Your task to perform on an android device: turn notification dots off Image 0: 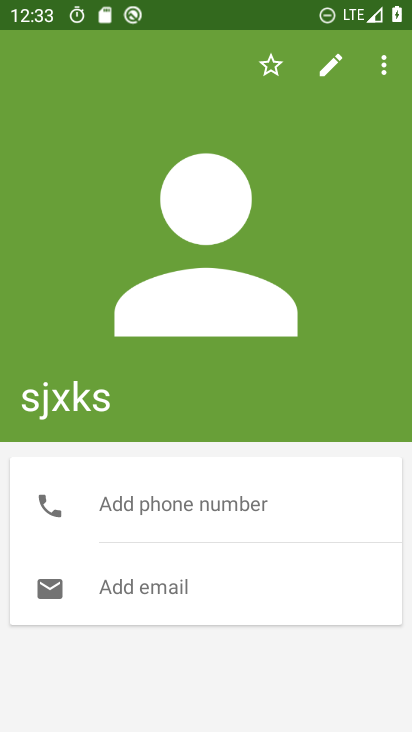
Step 0: drag from (233, 619) to (351, 194)
Your task to perform on an android device: turn notification dots off Image 1: 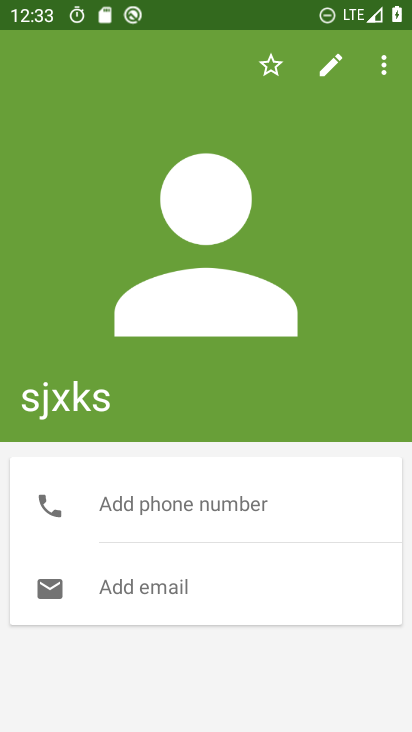
Step 1: drag from (191, 656) to (244, 361)
Your task to perform on an android device: turn notification dots off Image 2: 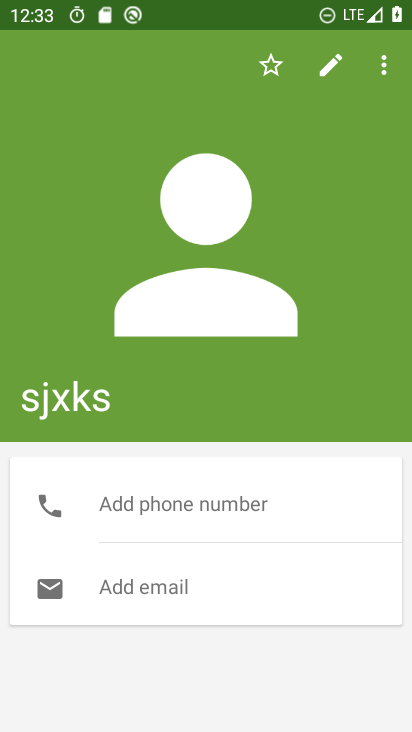
Step 2: drag from (233, 649) to (263, 339)
Your task to perform on an android device: turn notification dots off Image 3: 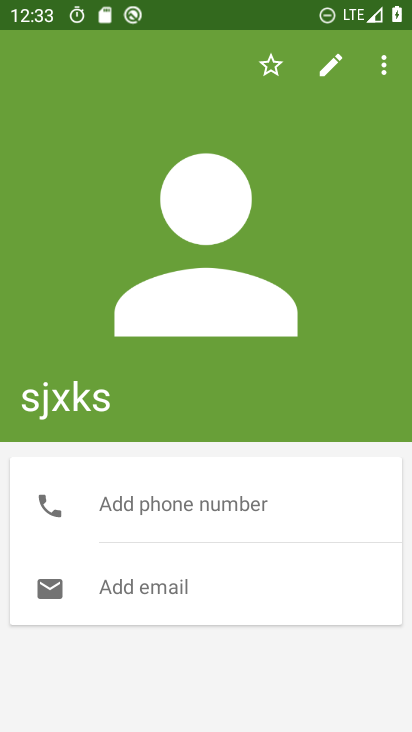
Step 3: press home button
Your task to perform on an android device: turn notification dots off Image 4: 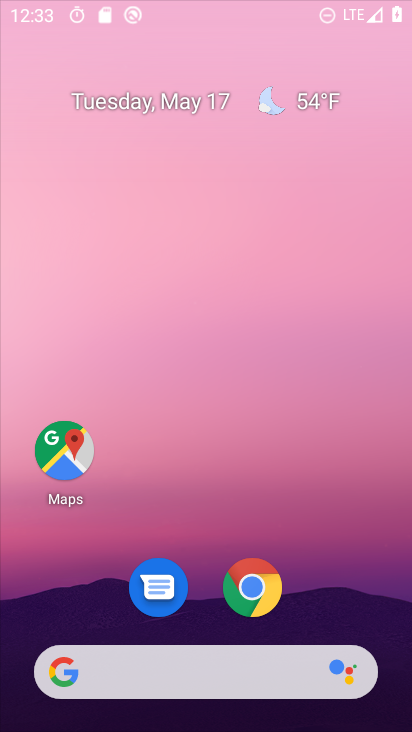
Step 4: drag from (259, 626) to (259, 207)
Your task to perform on an android device: turn notification dots off Image 5: 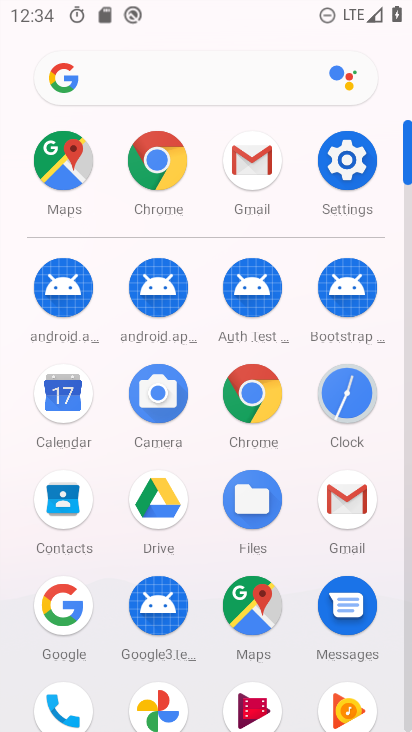
Step 5: click (353, 169)
Your task to perform on an android device: turn notification dots off Image 6: 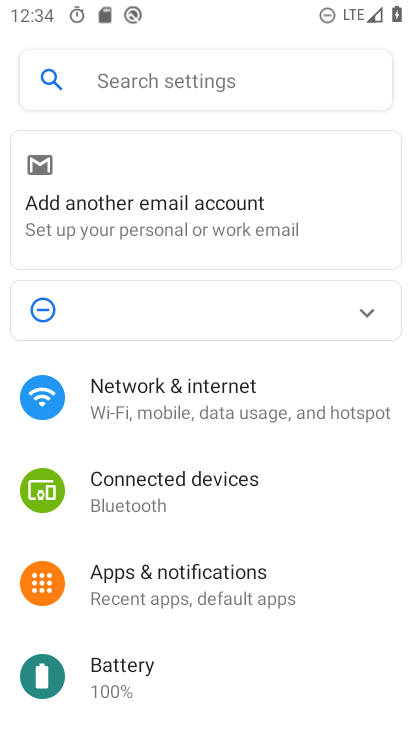
Step 6: drag from (231, 505) to (368, 74)
Your task to perform on an android device: turn notification dots off Image 7: 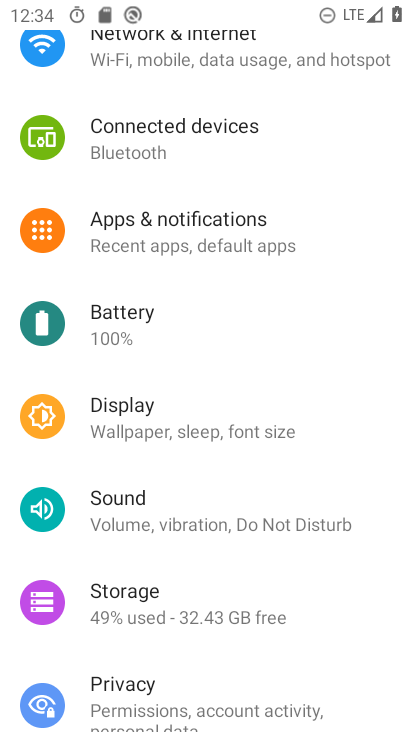
Step 7: click (204, 235)
Your task to perform on an android device: turn notification dots off Image 8: 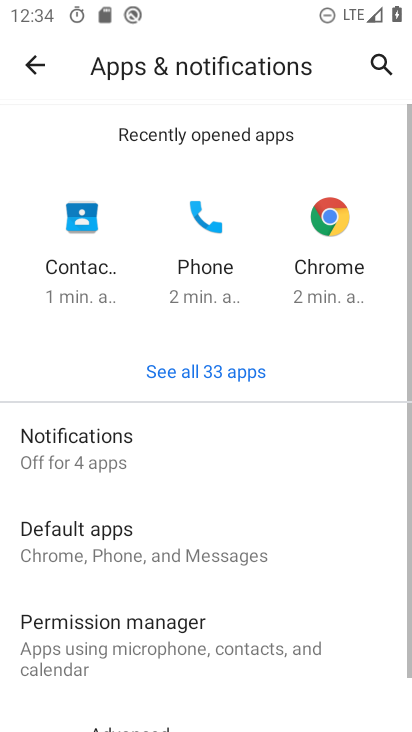
Step 8: drag from (183, 576) to (242, 335)
Your task to perform on an android device: turn notification dots off Image 9: 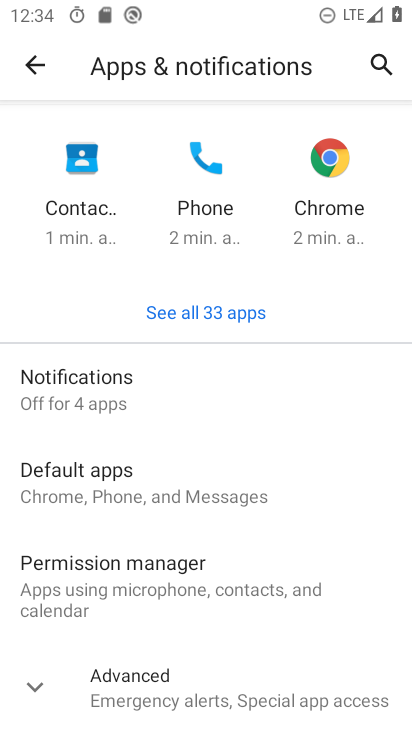
Step 9: drag from (228, 546) to (279, 194)
Your task to perform on an android device: turn notification dots off Image 10: 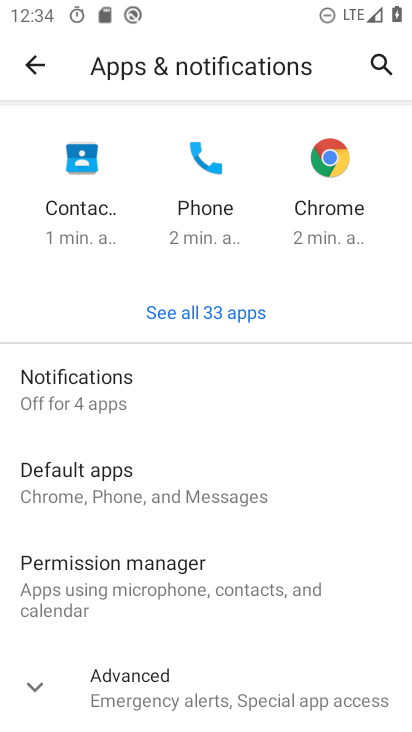
Step 10: drag from (257, 604) to (292, 312)
Your task to perform on an android device: turn notification dots off Image 11: 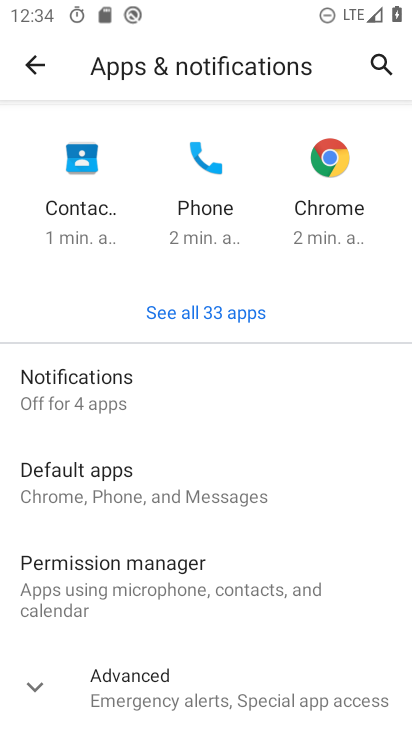
Step 11: drag from (237, 608) to (308, 218)
Your task to perform on an android device: turn notification dots off Image 12: 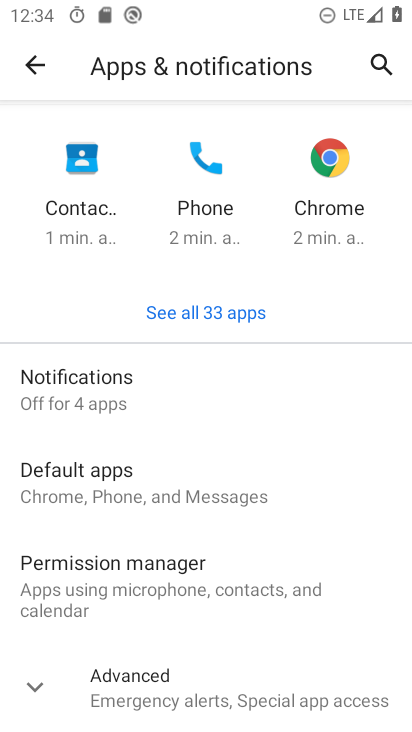
Step 12: click (153, 394)
Your task to perform on an android device: turn notification dots off Image 13: 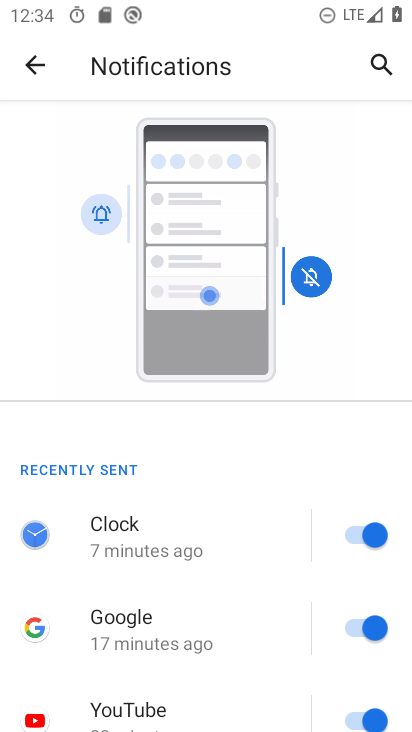
Step 13: drag from (196, 577) to (290, 61)
Your task to perform on an android device: turn notification dots off Image 14: 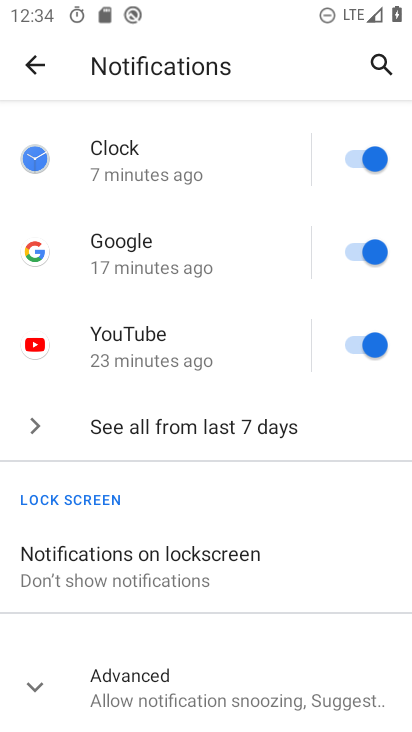
Step 14: drag from (173, 569) to (260, 194)
Your task to perform on an android device: turn notification dots off Image 15: 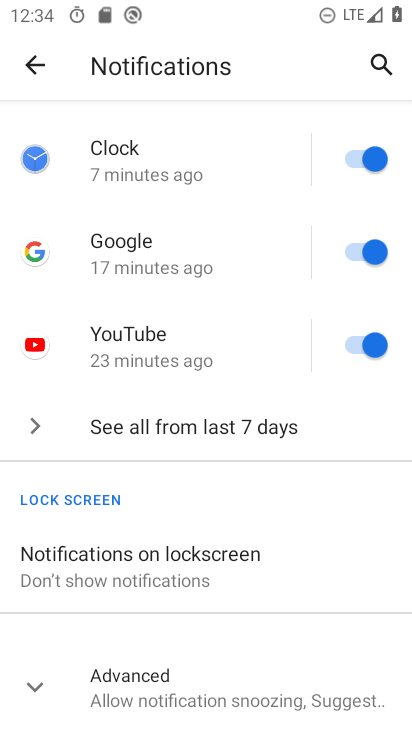
Step 15: click (147, 681)
Your task to perform on an android device: turn notification dots off Image 16: 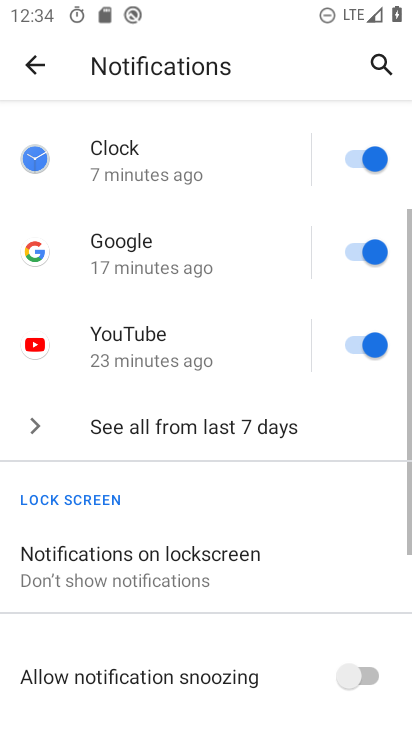
Step 16: task complete